Your task to perform on an android device: uninstall "Pluto TV - Live TV and Movies" Image 0: 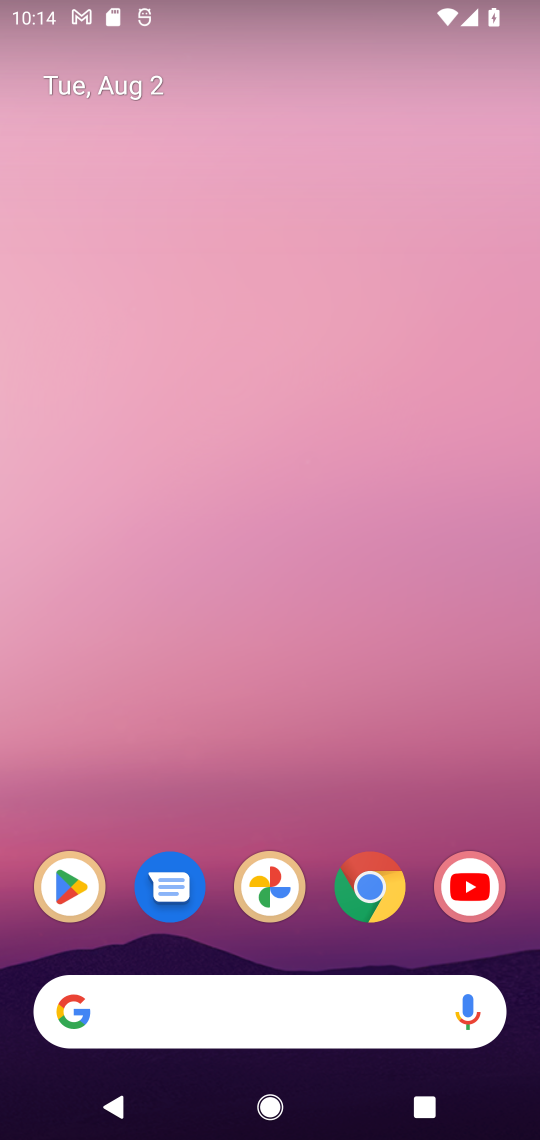
Step 0: click (54, 897)
Your task to perform on an android device: uninstall "Pluto TV - Live TV and Movies" Image 1: 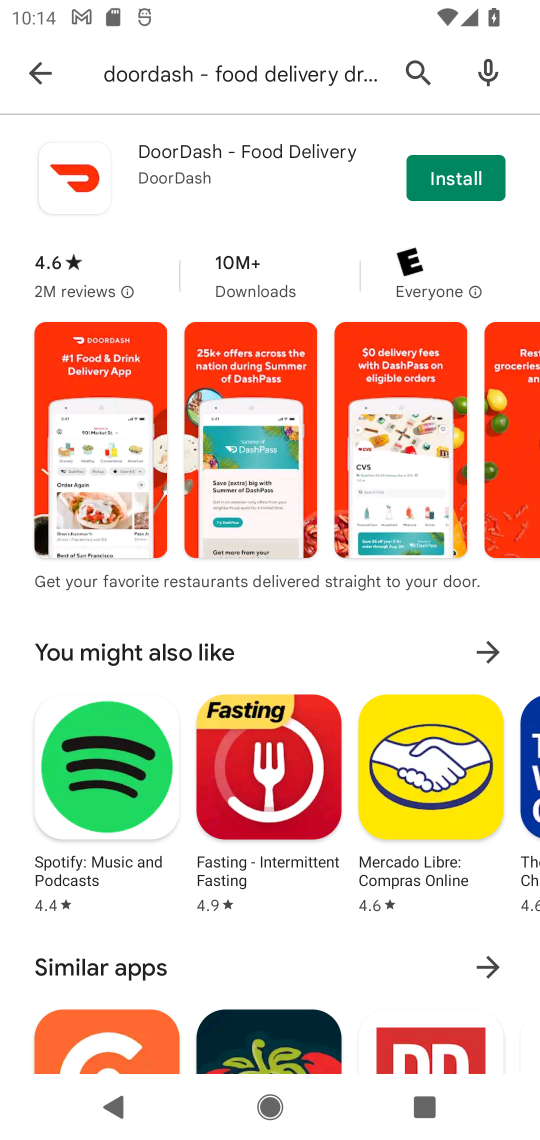
Step 1: click (45, 61)
Your task to perform on an android device: uninstall "Pluto TV - Live TV and Movies" Image 2: 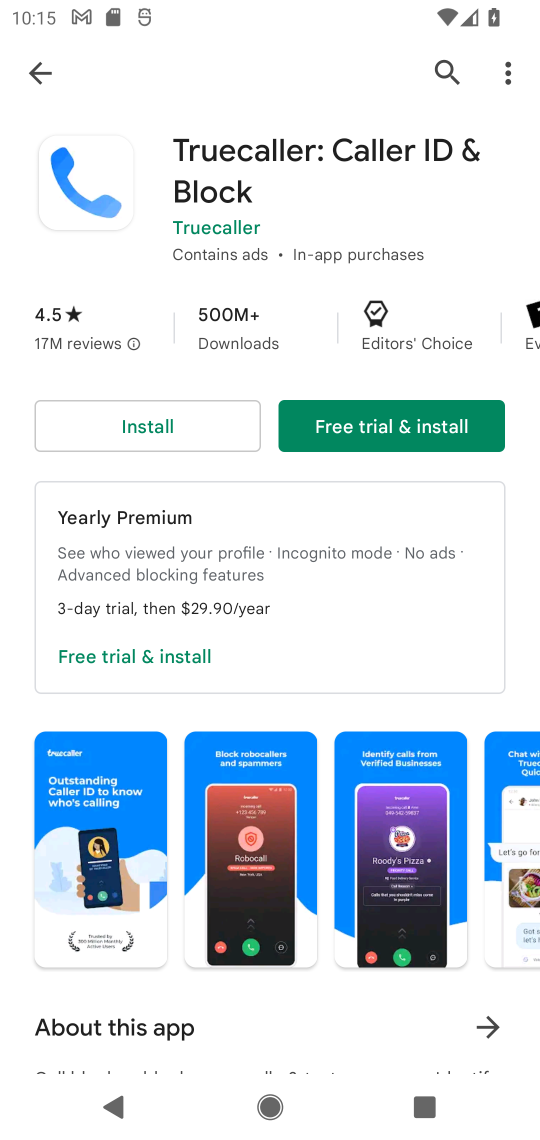
Step 2: click (37, 68)
Your task to perform on an android device: uninstall "Pluto TV - Live TV and Movies" Image 3: 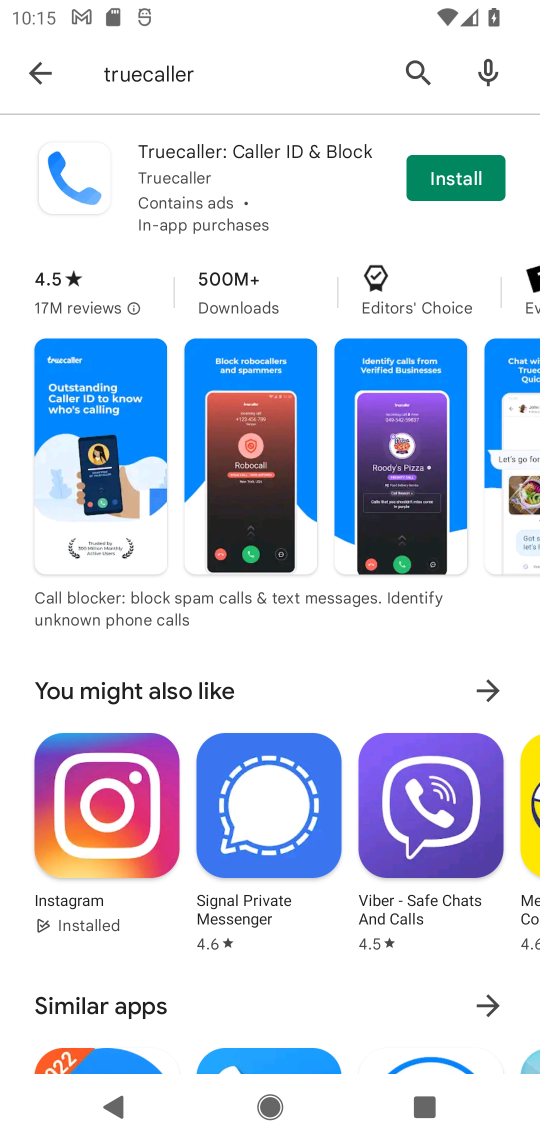
Step 3: click (28, 65)
Your task to perform on an android device: uninstall "Pluto TV - Live TV and Movies" Image 4: 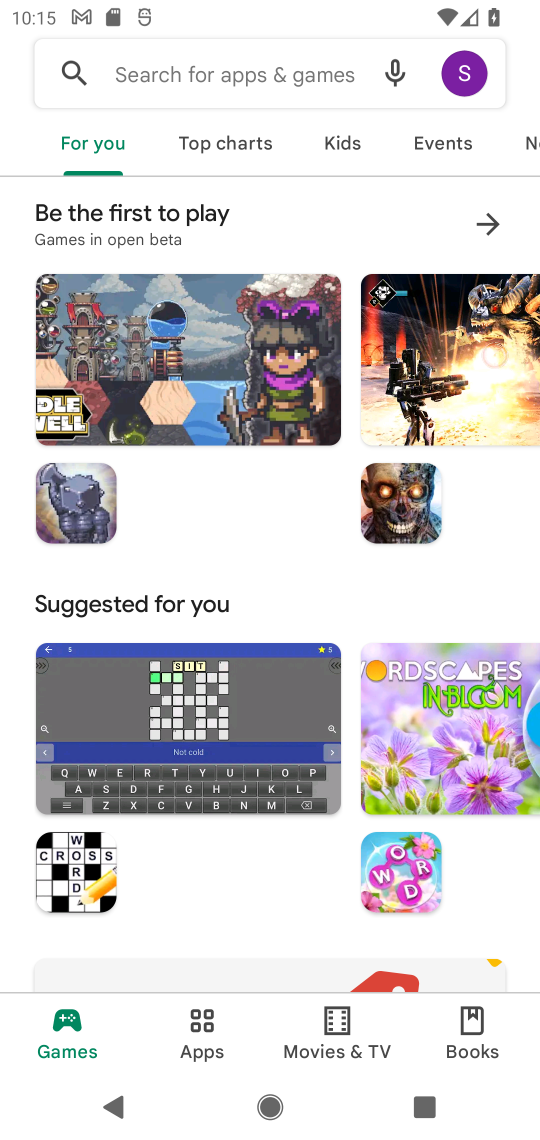
Step 4: click (135, 67)
Your task to perform on an android device: uninstall "Pluto TV - Live TV and Movies" Image 5: 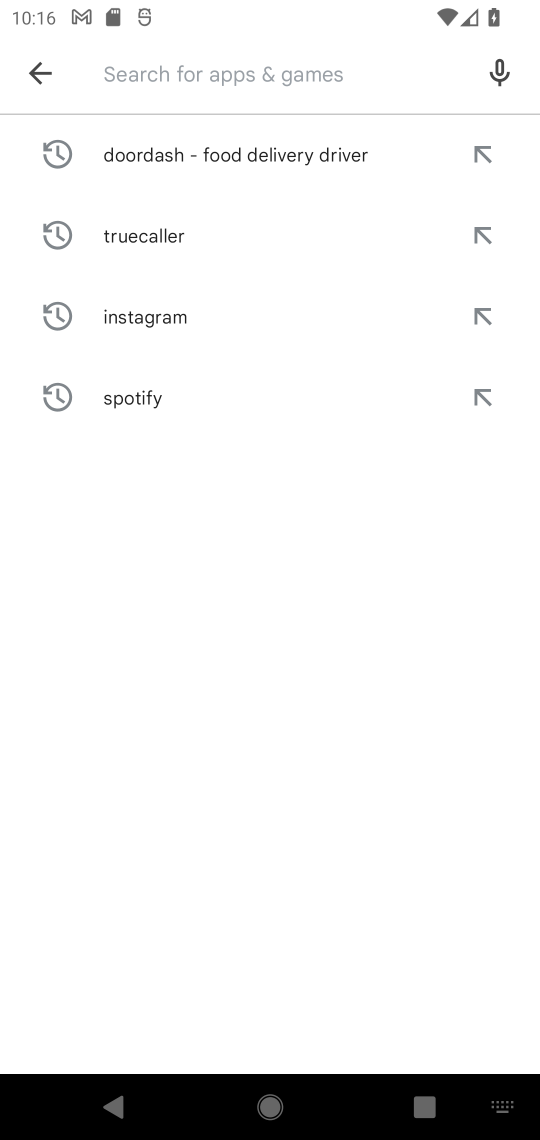
Step 5: type "Pluto TV - Live TV and Movies"
Your task to perform on an android device: uninstall "Pluto TV - Live TV and Movies" Image 6: 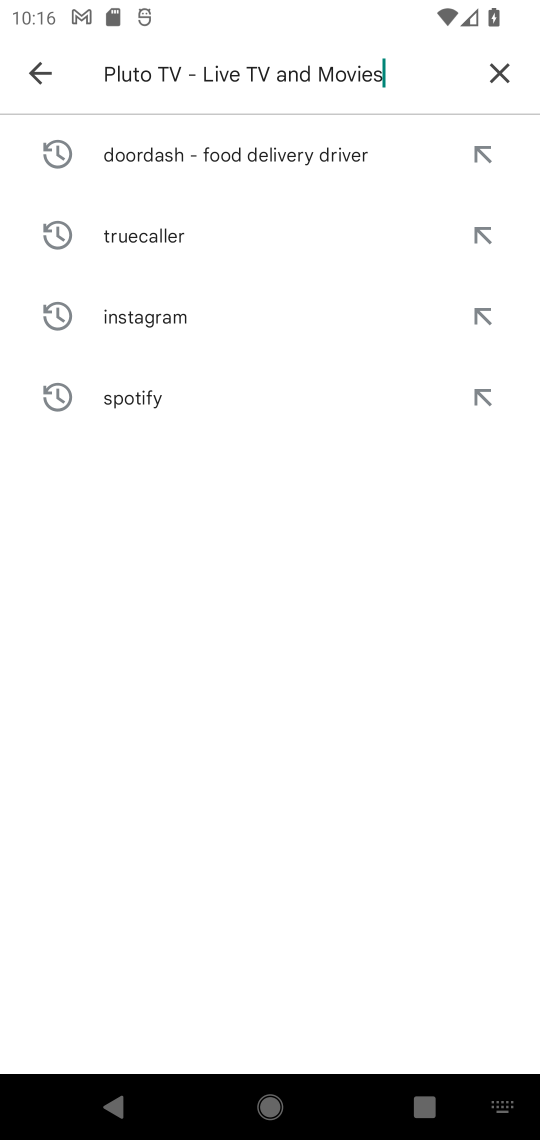
Step 6: type ""
Your task to perform on an android device: uninstall "Pluto TV - Live TV and Movies" Image 7: 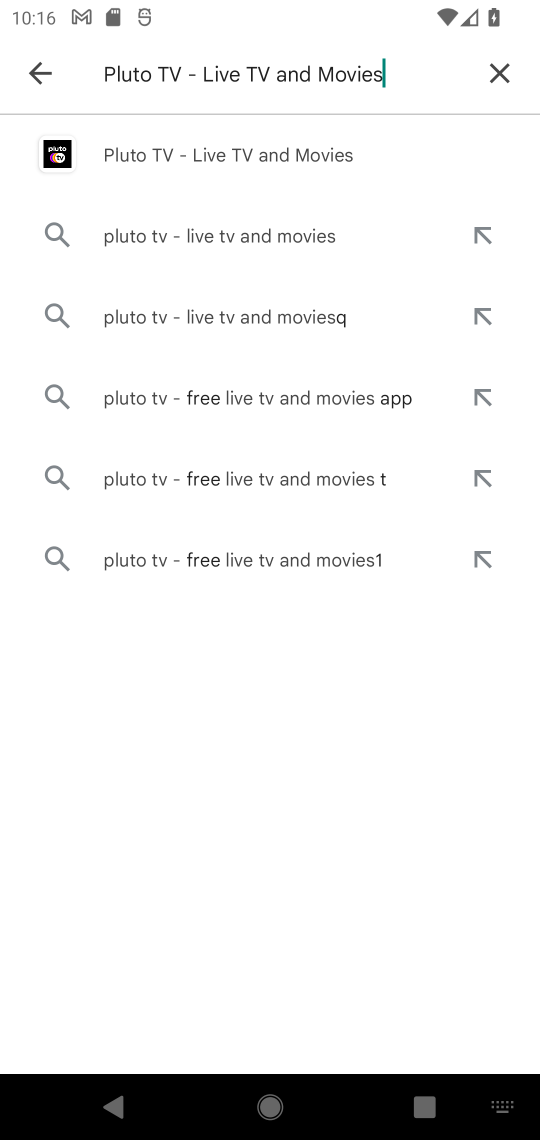
Step 7: click (158, 148)
Your task to perform on an android device: uninstall "Pluto TV - Live TV and Movies" Image 8: 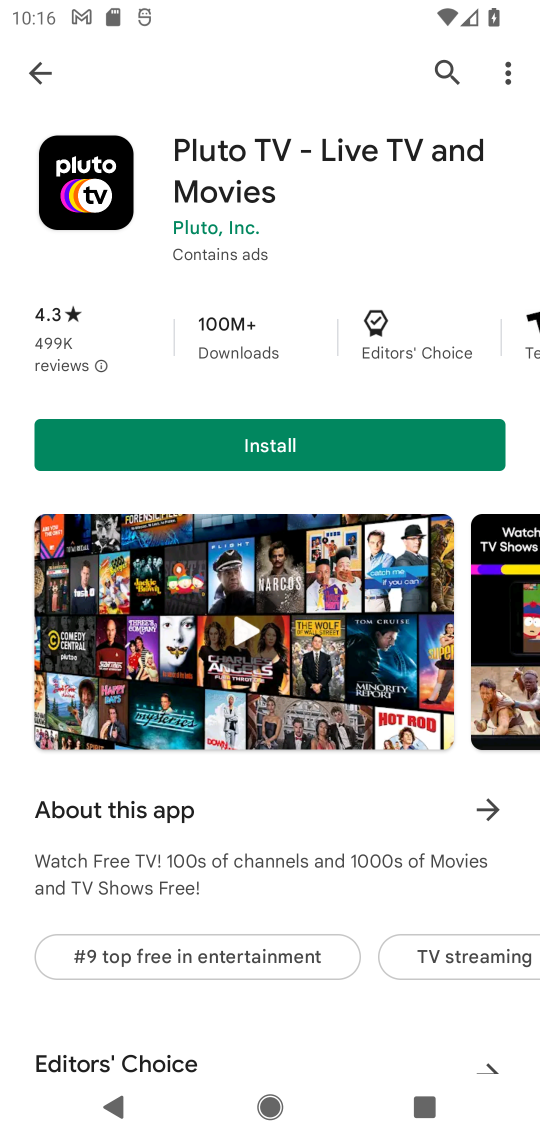
Step 8: task complete